Your task to perform on an android device: What's the weather? Image 0: 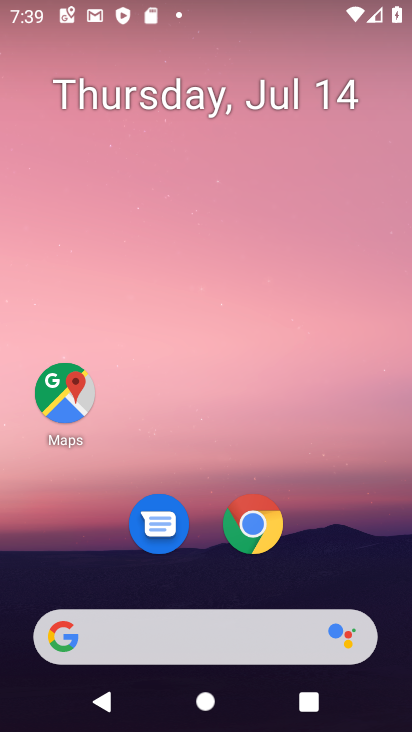
Step 0: click (273, 630)
Your task to perform on an android device: What's the weather? Image 1: 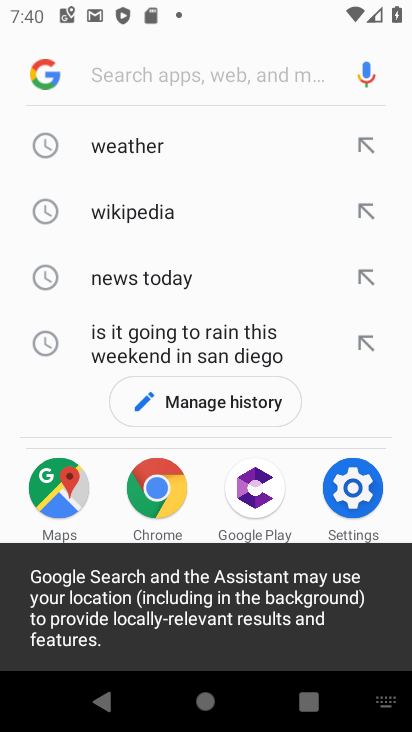
Step 1: click (128, 142)
Your task to perform on an android device: What's the weather? Image 2: 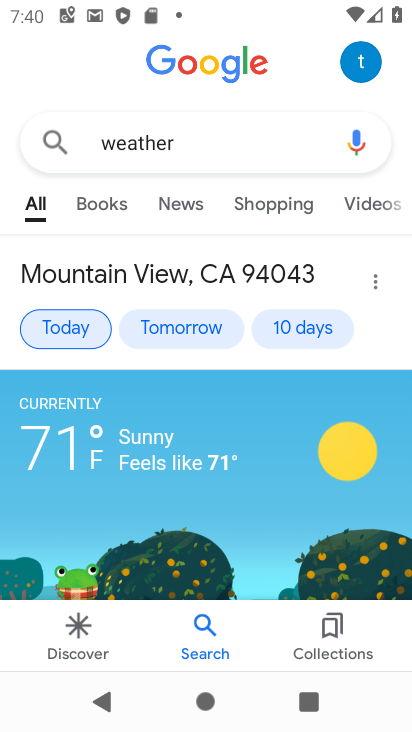
Step 2: click (70, 318)
Your task to perform on an android device: What's the weather? Image 3: 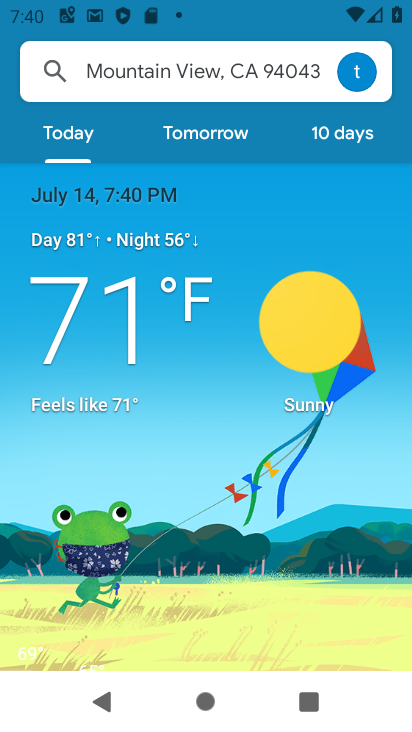
Step 3: task complete